Your task to perform on an android device: toggle notifications settings in the gmail app Image 0: 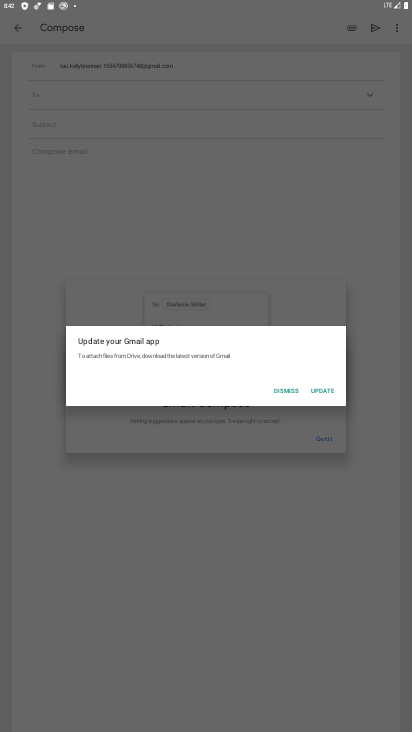
Step 0: press home button
Your task to perform on an android device: toggle notifications settings in the gmail app Image 1: 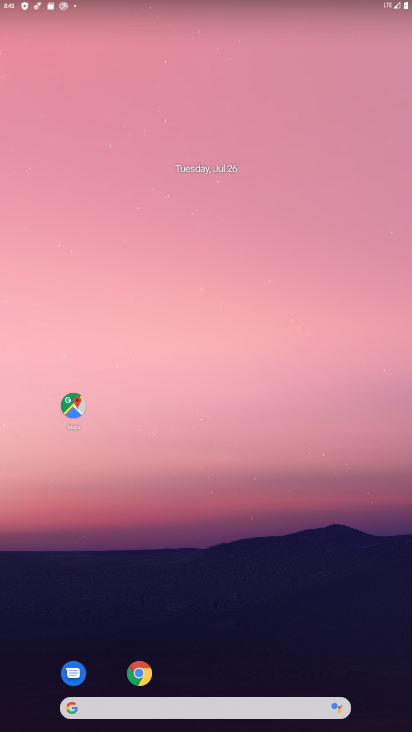
Step 1: drag from (307, 691) to (362, 182)
Your task to perform on an android device: toggle notifications settings in the gmail app Image 2: 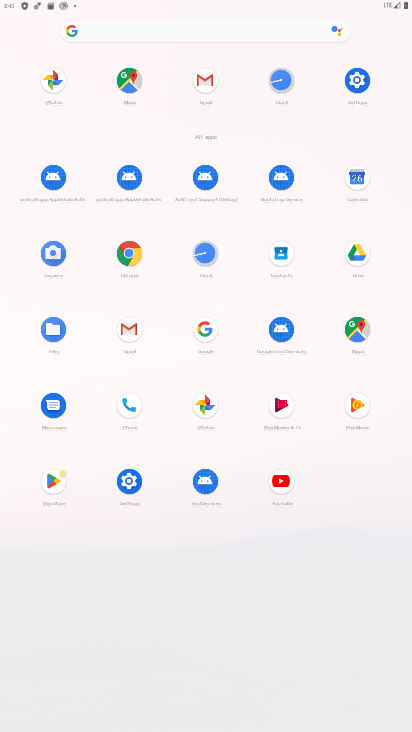
Step 2: click (122, 332)
Your task to perform on an android device: toggle notifications settings in the gmail app Image 3: 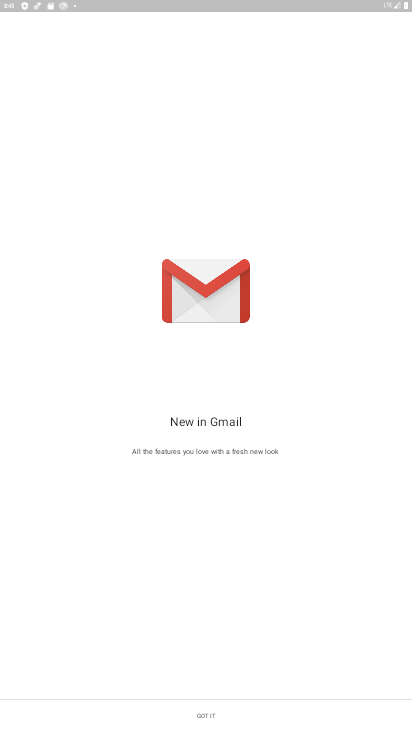
Step 3: click (196, 712)
Your task to perform on an android device: toggle notifications settings in the gmail app Image 4: 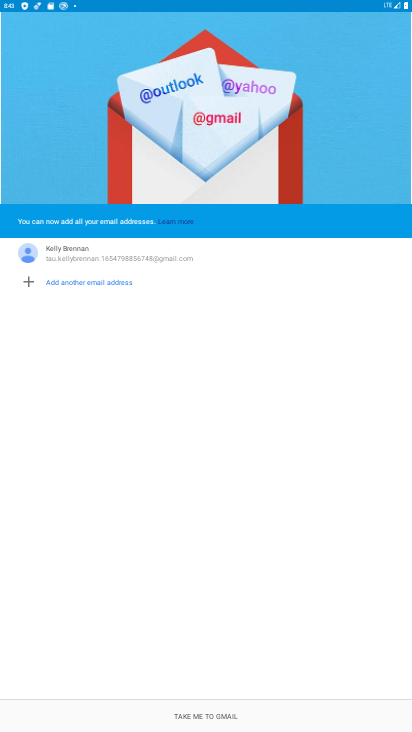
Step 4: click (191, 715)
Your task to perform on an android device: toggle notifications settings in the gmail app Image 5: 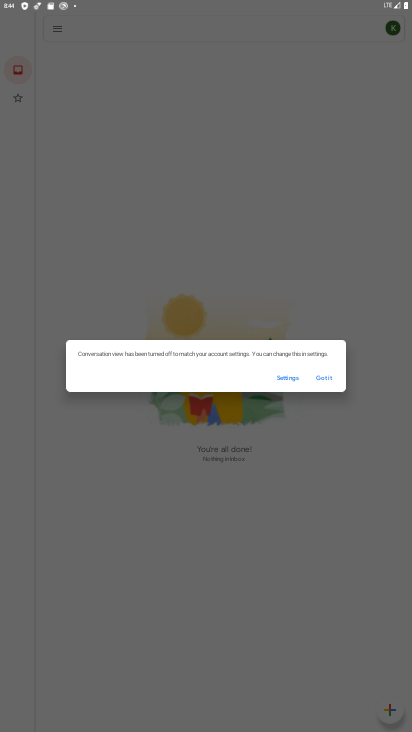
Step 5: click (331, 380)
Your task to perform on an android device: toggle notifications settings in the gmail app Image 6: 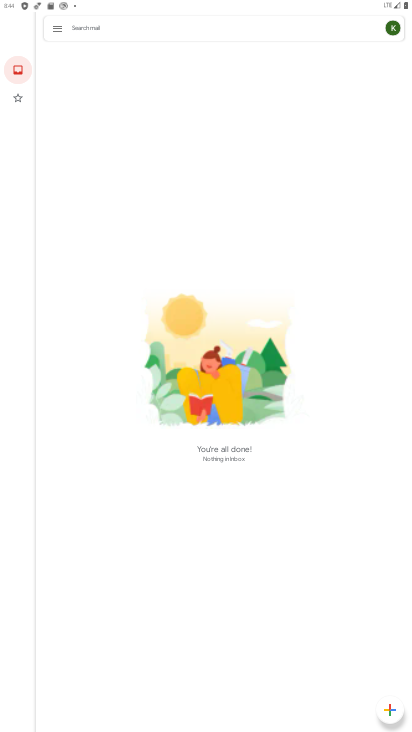
Step 6: click (61, 30)
Your task to perform on an android device: toggle notifications settings in the gmail app Image 7: 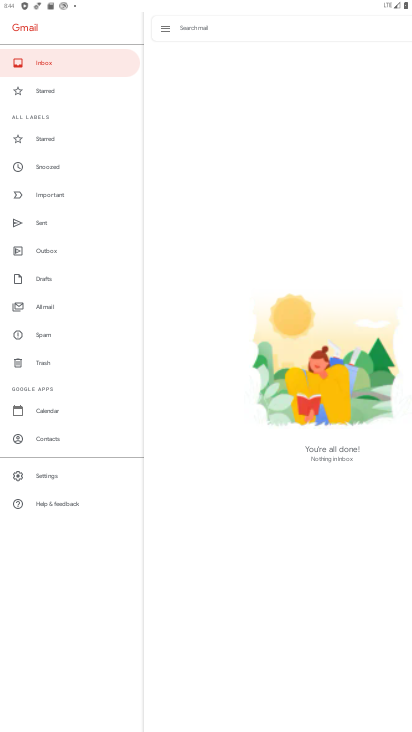
Step 7: click (44, 479)
Your task to perform on an android device: toggle notifications settings in the gmail app Image 8: 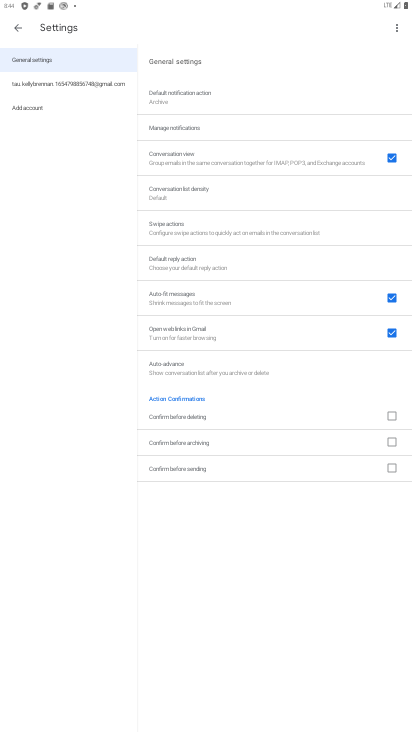
Step 8: click (40, 83)
Your task to perform on an android device: toggle notifications settings in the gmail app Image 9: 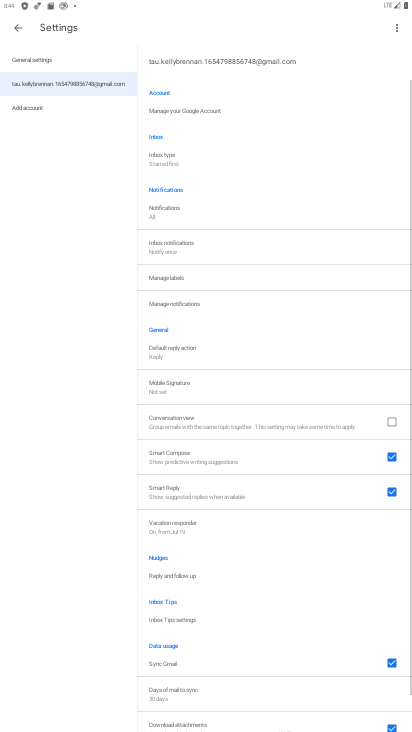
Step 9: click (170, 299)
Your task to perform on an android device: toggle notifications settings in the gmail app Image 10: 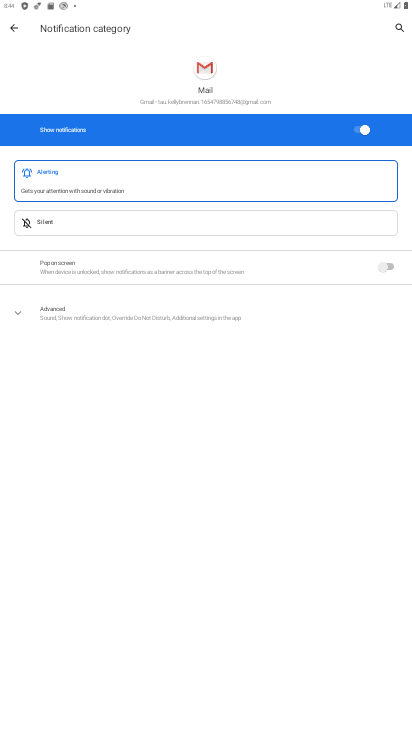
Step 10: click (352, 134)
Your task to perform on an android device: toggle notifications settings in the gmail app Image 11: 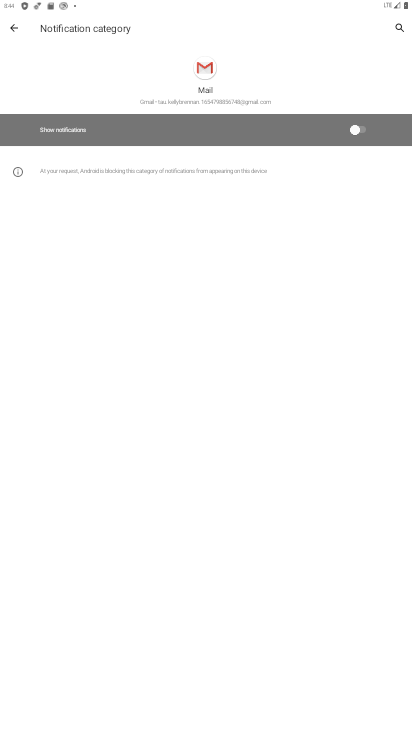
Step 11: task complete